Your task to perform on an android device: Show the shopping cart on target.com. Add duracell triple a to the cart on target.com Image 0: 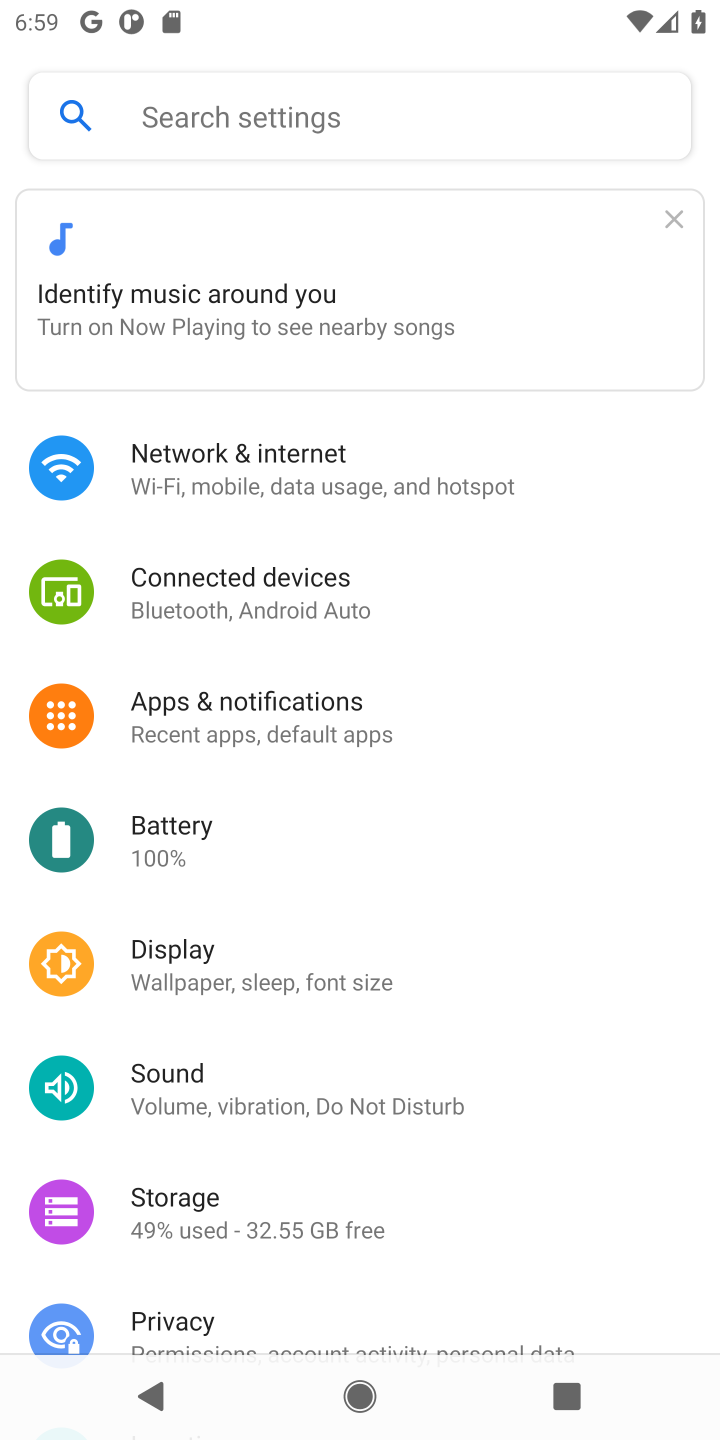
Step 0: press home button
Your task to perform on an android device: Show the shopping cart on target.com. Add duracell triple a to the cart on target.com Image 1: 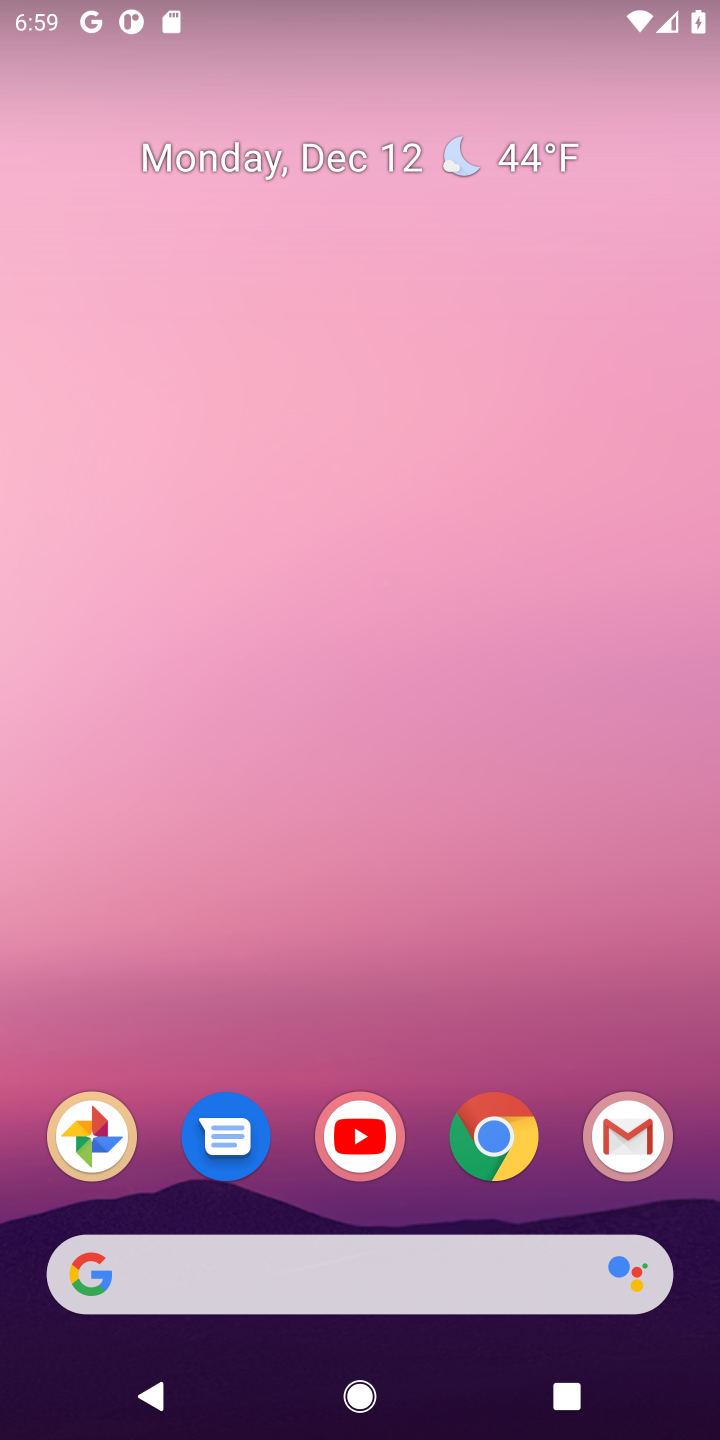
Step 1: click (487, 1144)
Your task to perform on an android device: Show the shopping cart on target.com. Add duracell triple a to the cart on target.com Image 2: 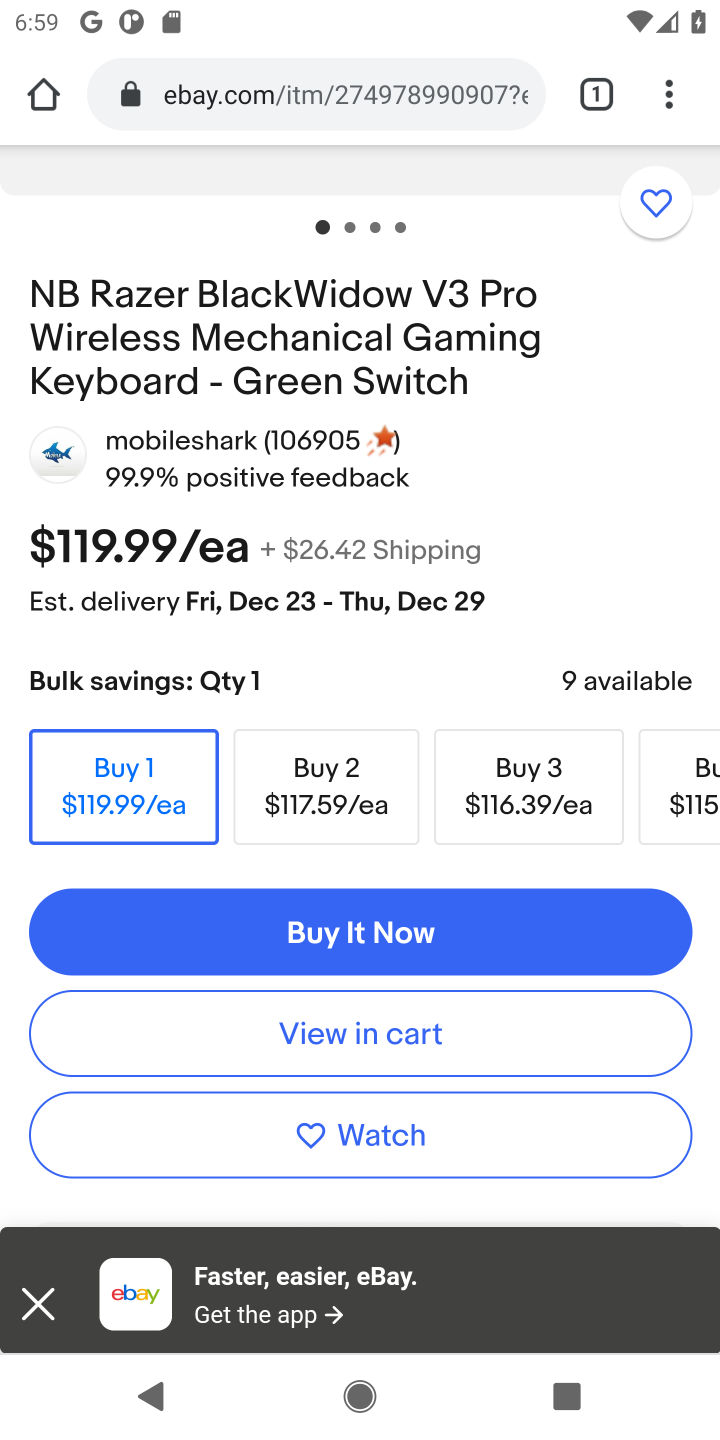
Step 2: click (283, 92)
Your task to perform on an android device: Show the shopping cart on target.com. Add duracell triple a to the cart on target.com Image 3: 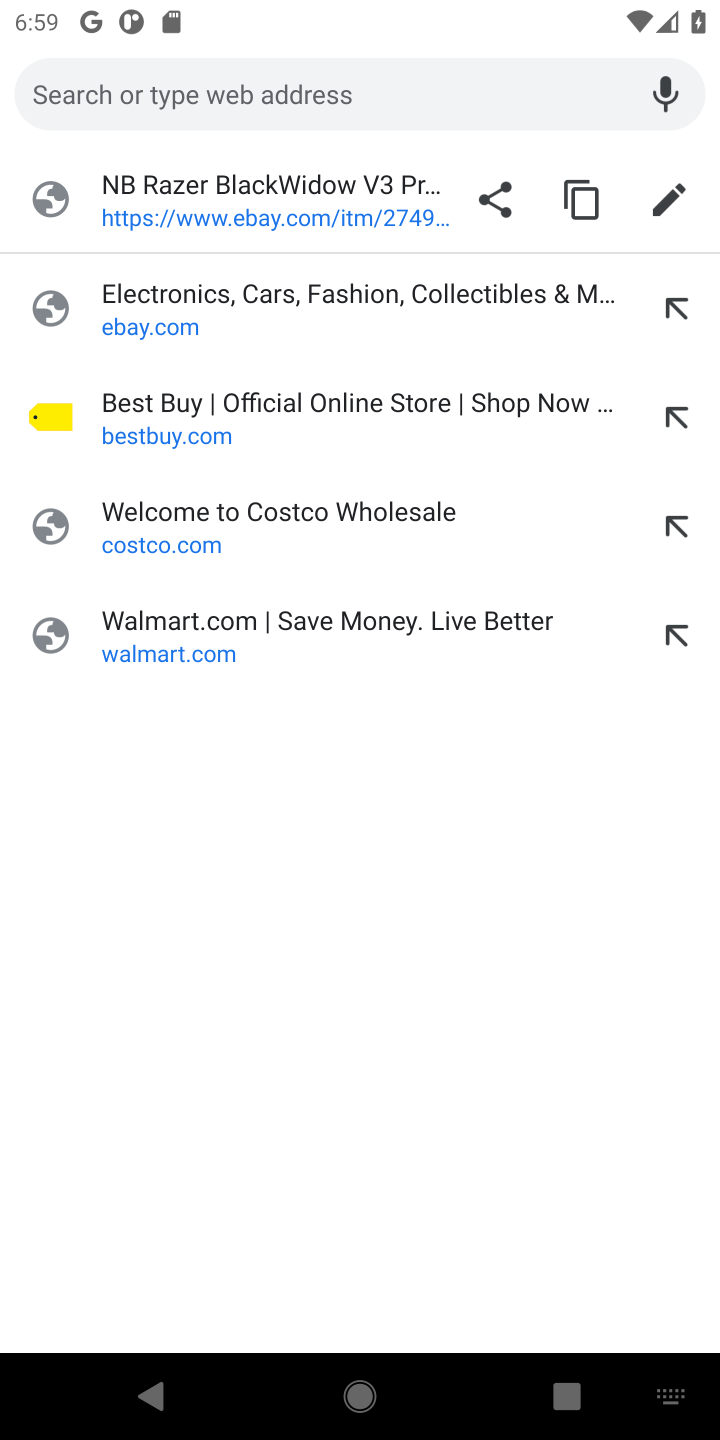
Step 3: type "target.com"
Your task to perform on an android device: Show the shopping cart on target.com. Add duracell triple a to the cart on target.com Image 4: 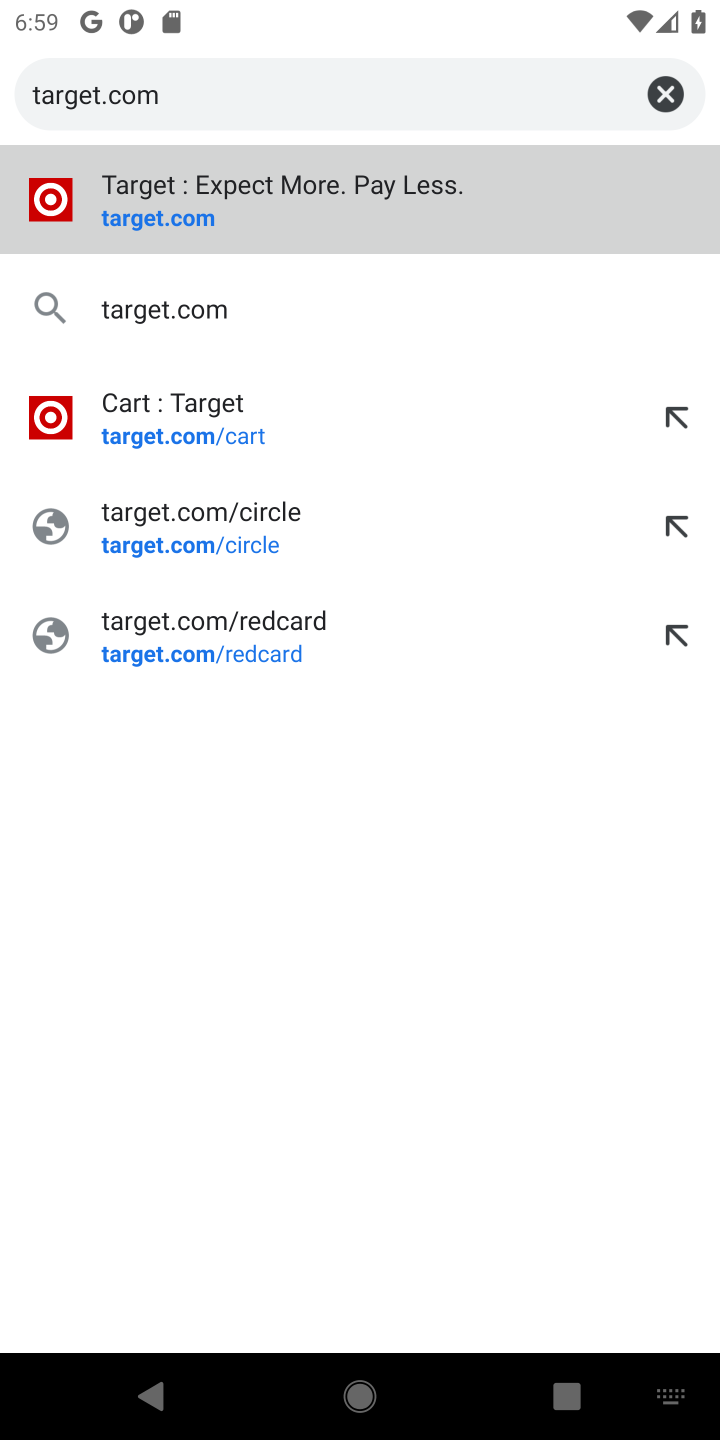
Step 4: click (172, 197)
Your task to perform on an android device: Show the shopping cart on target.com. Add duracell triple a to the cart on target.com Image 5: 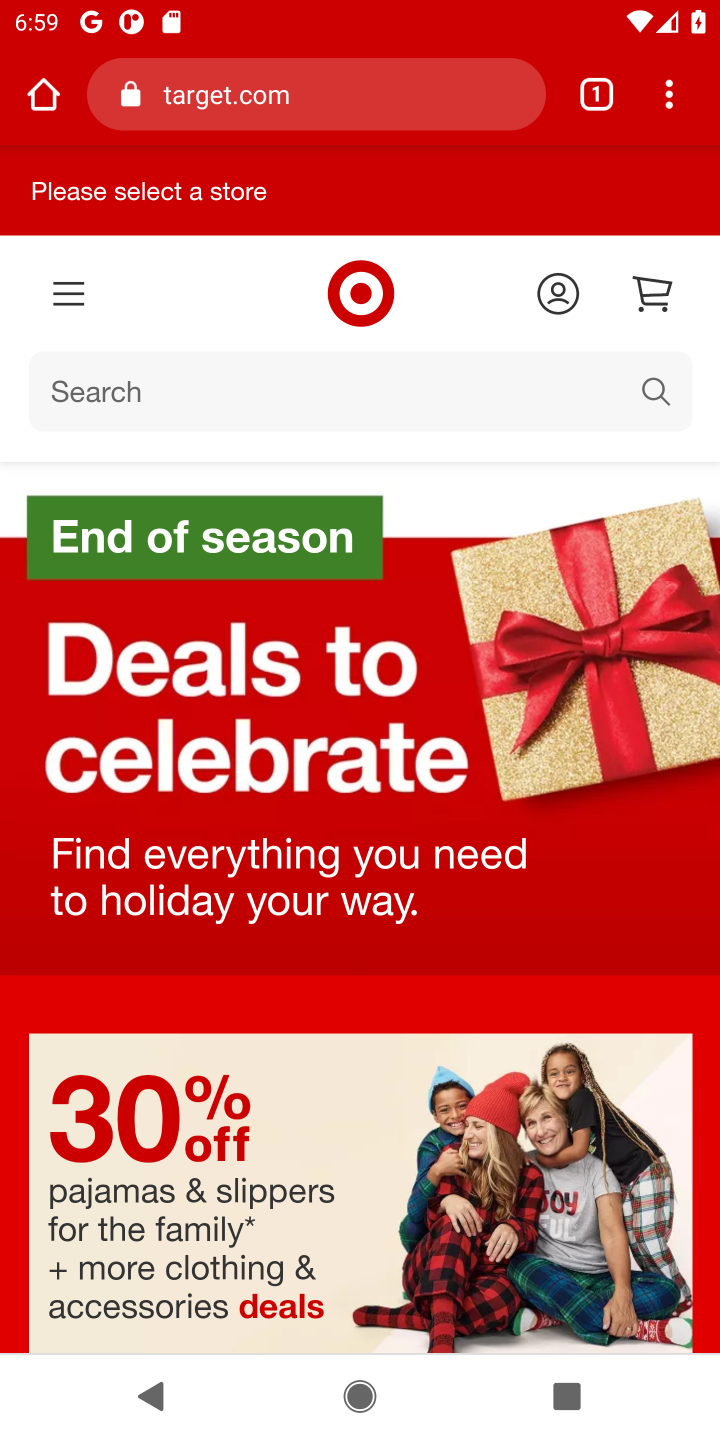
Step 5: click (639, 291)
Your task to perform on an android device: Show the shopping cart on target.com. Add duracell triple a to the cart on target.com Image 6: 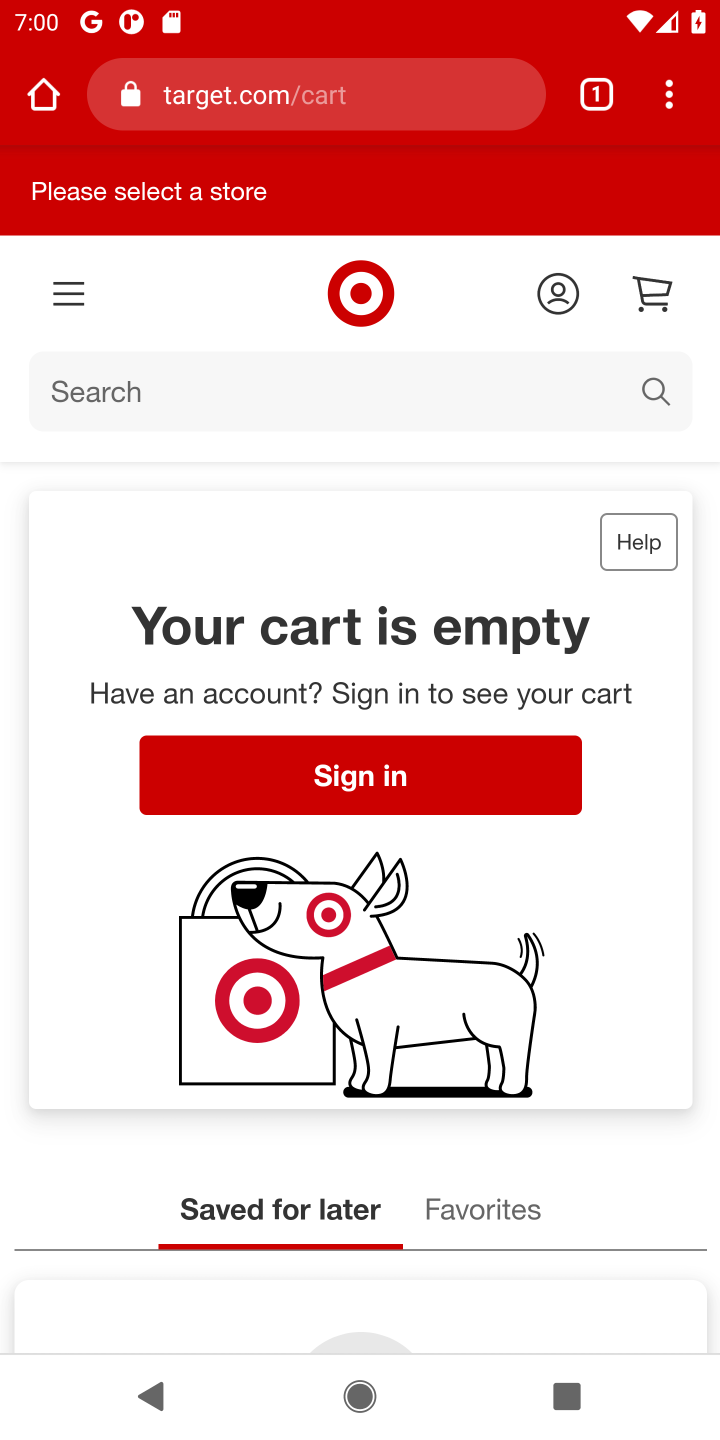
Step 6: click (107, 403)
Your task to perform on an android device: Show the shopping cart on target.com. Add duracell triple a to the cart on target.com Image 7: 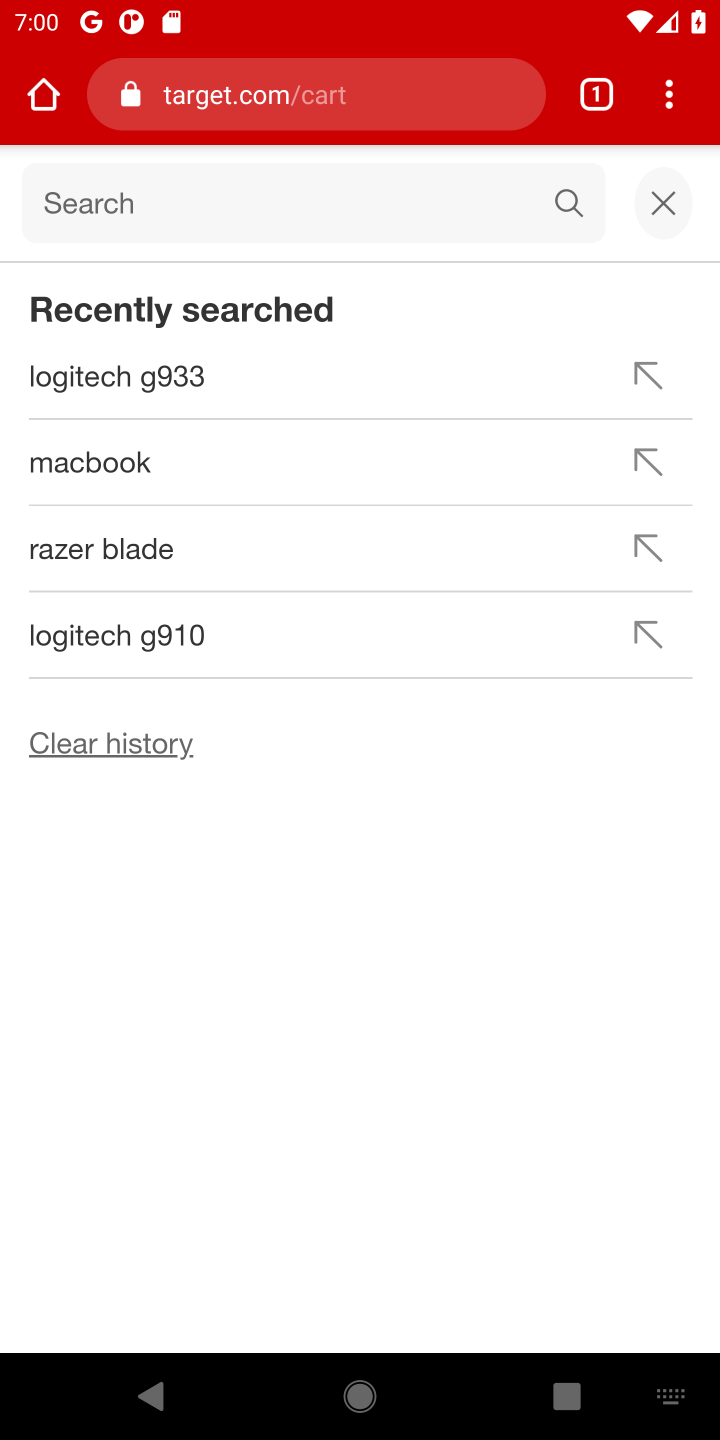
Step 7: type "duracell triple a"
Your task to perform on an android device: Show the shopping cart on target.com. Add duracell triple a to the cart on target.com Image 8: 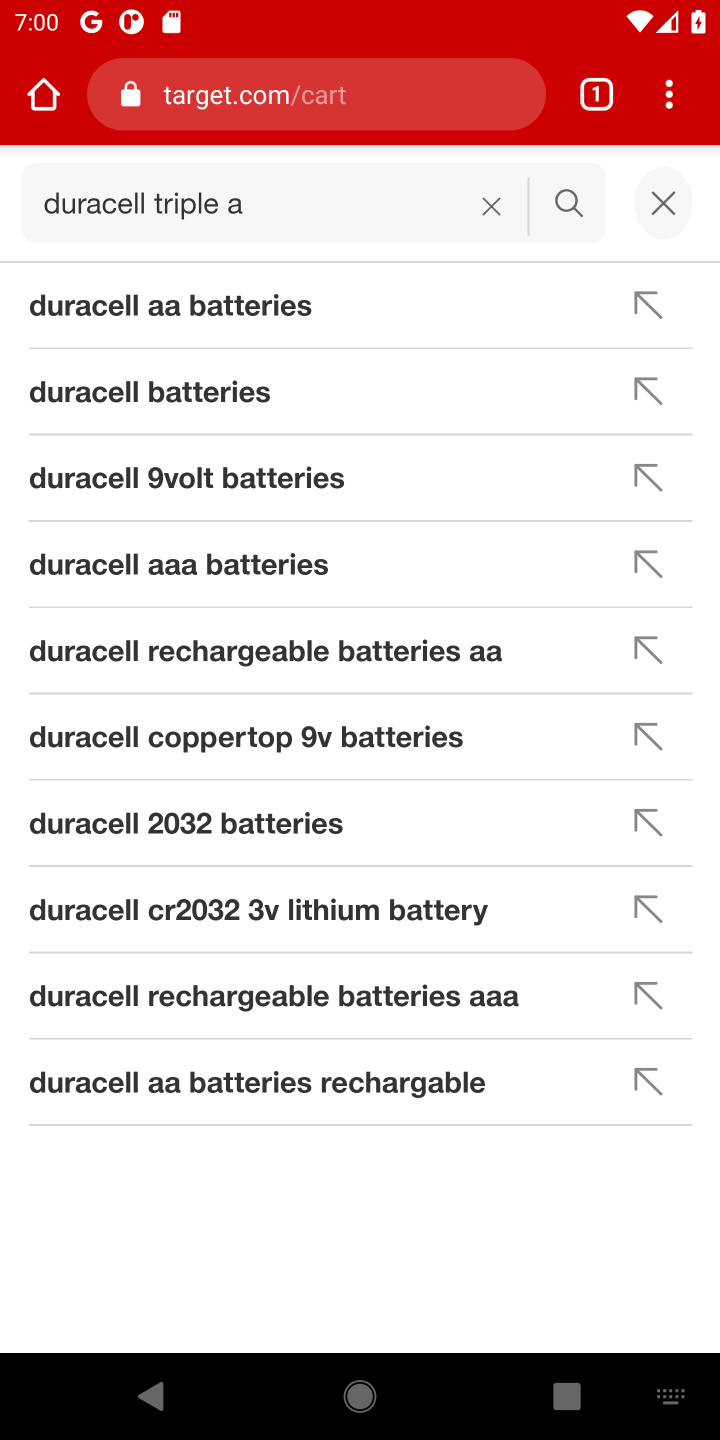
Step 8: click (574, 195)
Your task to perform on an android device: Show the shopping cart on target.com. Add duracell triple a to the cart on target.com Image 9: 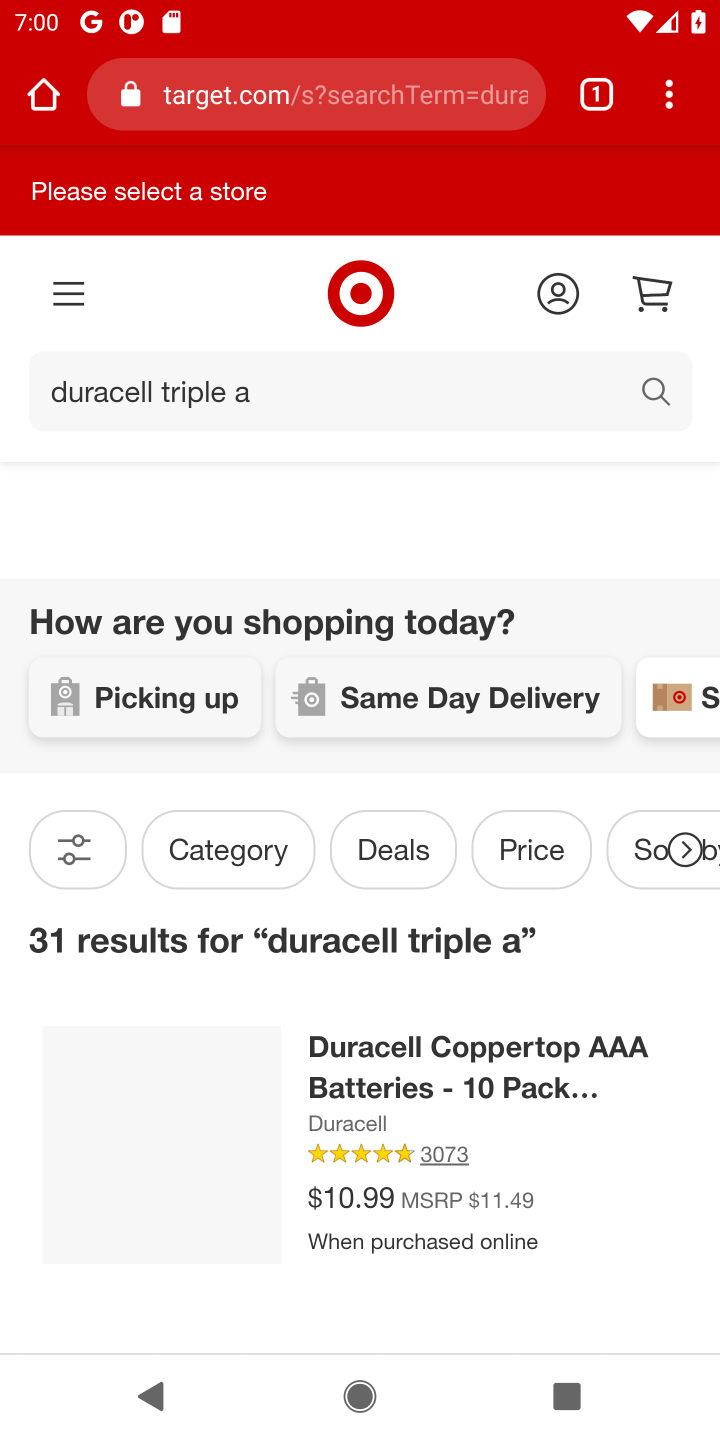
Step 9: drag from (337, 1010) to (359, 511)
Your task to perform on an android device: Show the shopping cart on target.com. Add duracell triple a to the cart on target.com Image 10: 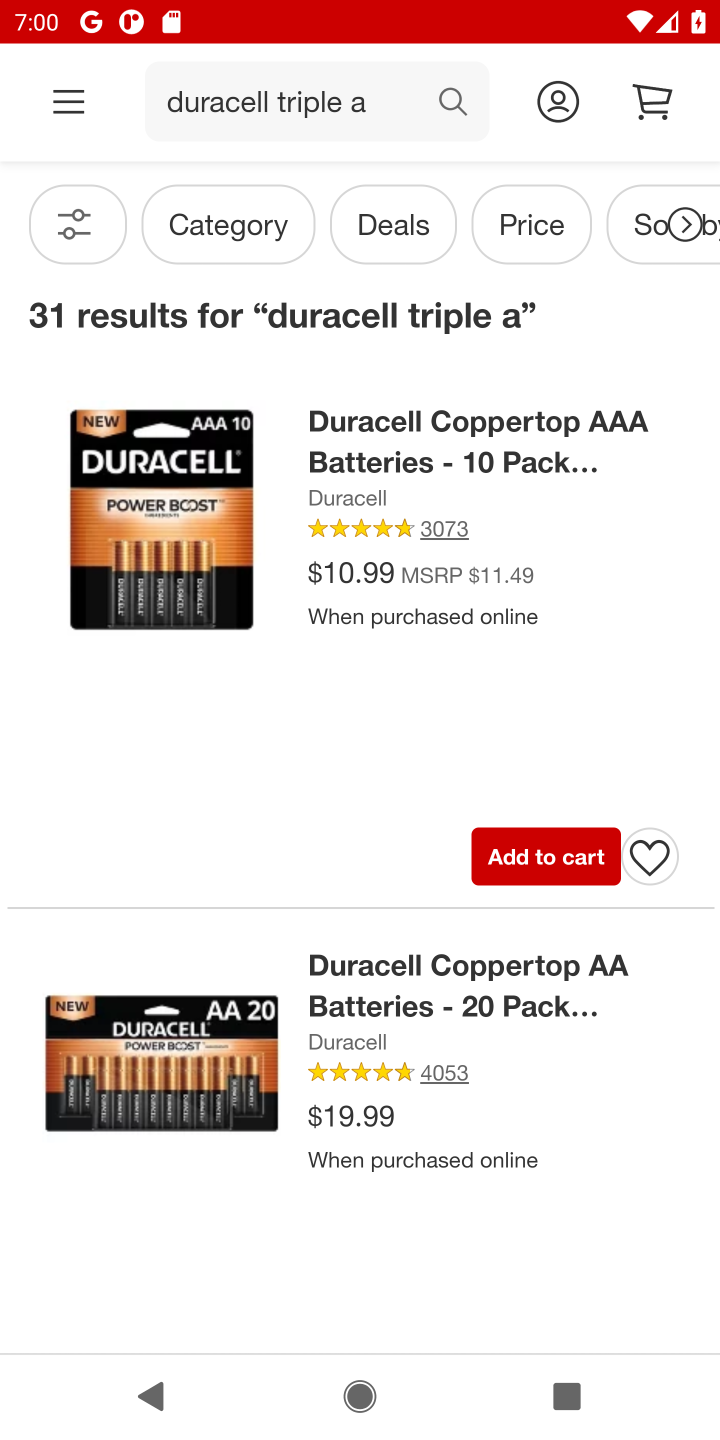
Step 10: click (361, 464)
Your task to perform on an android device: Show the shopping cart on target.com. Add duracell triple a to the cart on target.com Image 11: 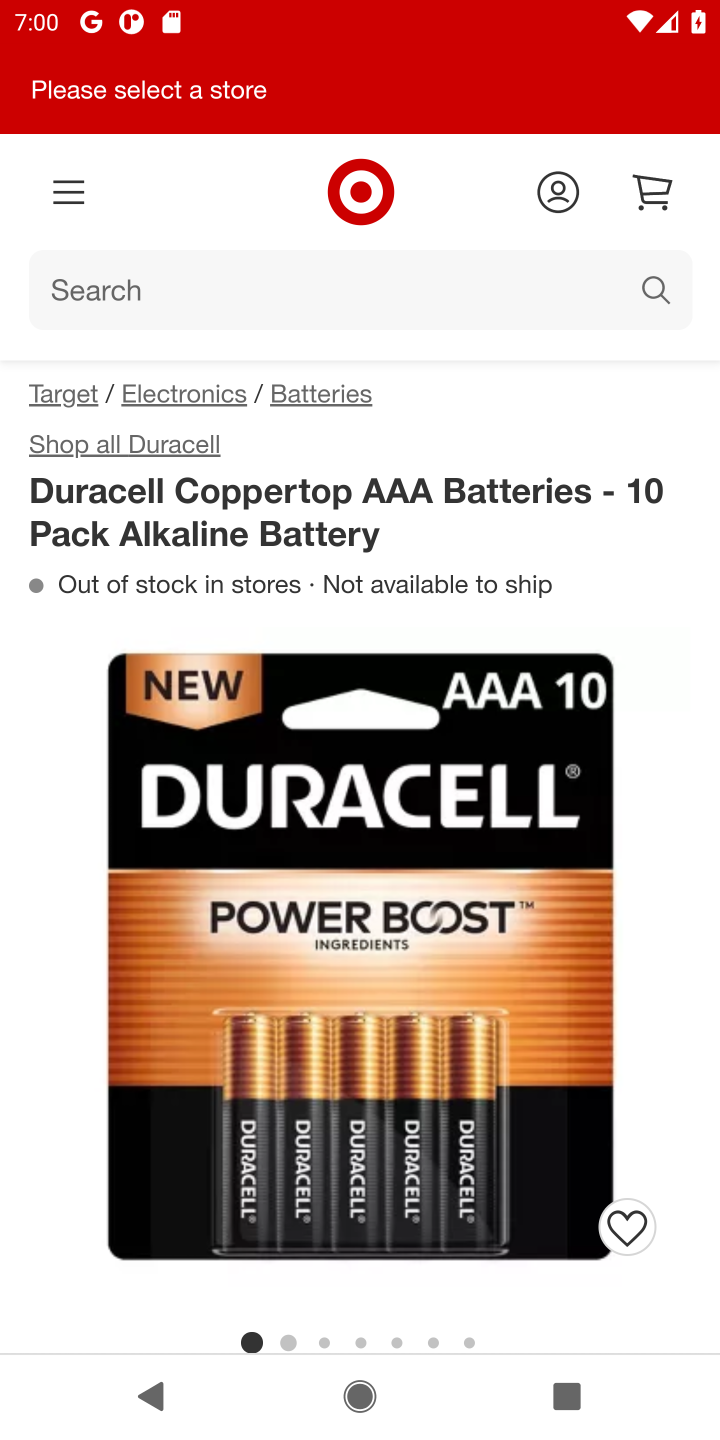
Step 11: drag from (382, 724) to (368, 382)
Your task to perform on an android device: Show the shopping cart on target.com. Add duracell triple a to the cart on target.com Image 12: 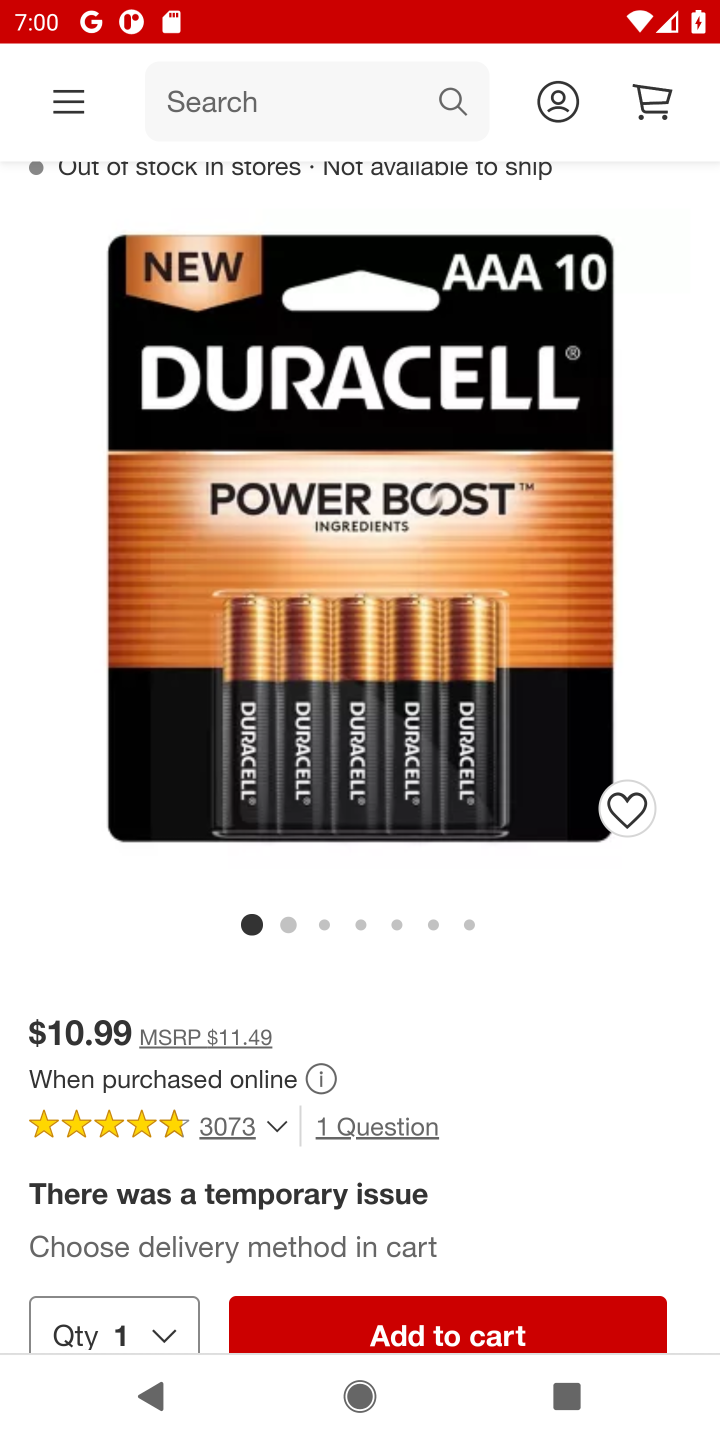
Step 12: drag from (394, 889) to (330, 502)
Your task to perform on an android device: Show the shopping cart on target.com. Add duracell triple a to the cart on target.com Image 13: 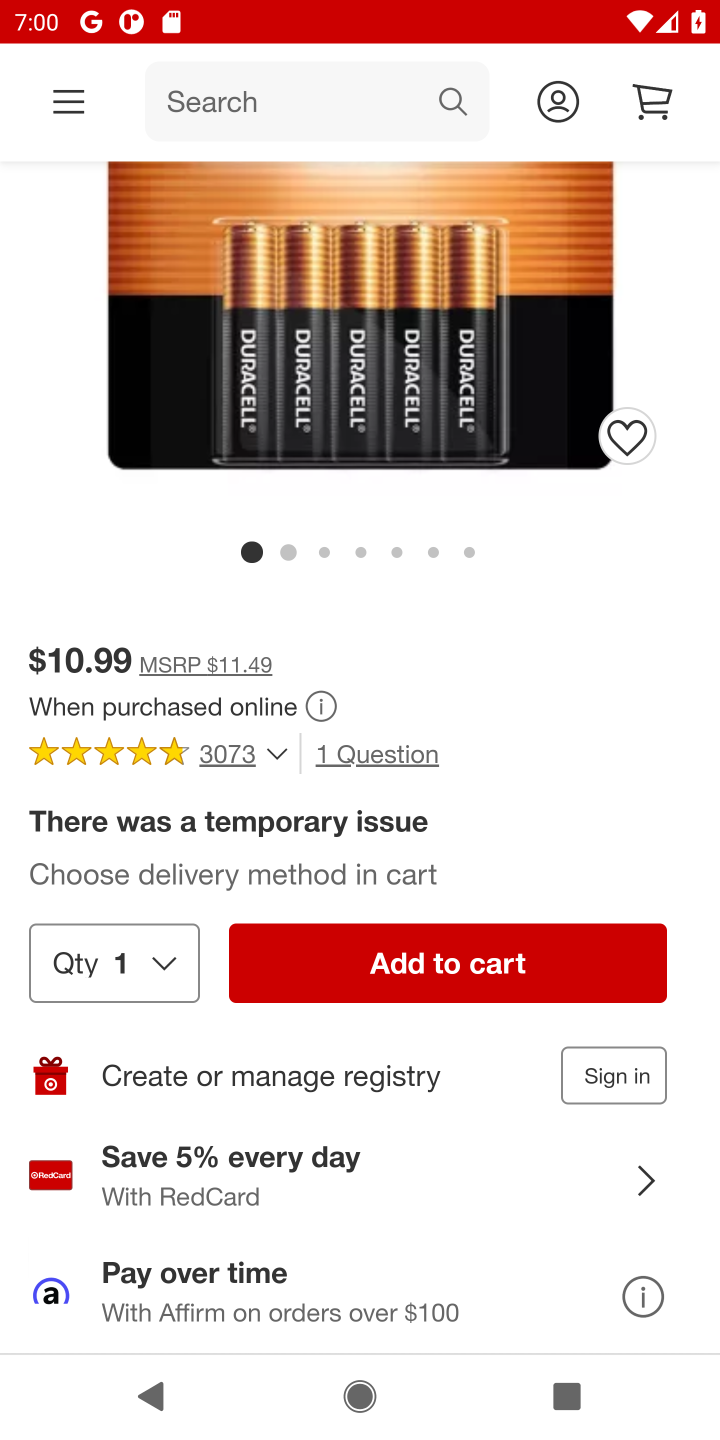
Step 13: click (443, 984)
Your task to perform on an android device: Show the shopping cart on target.com. Add duracell triple a to the cart on target.com Image 14: 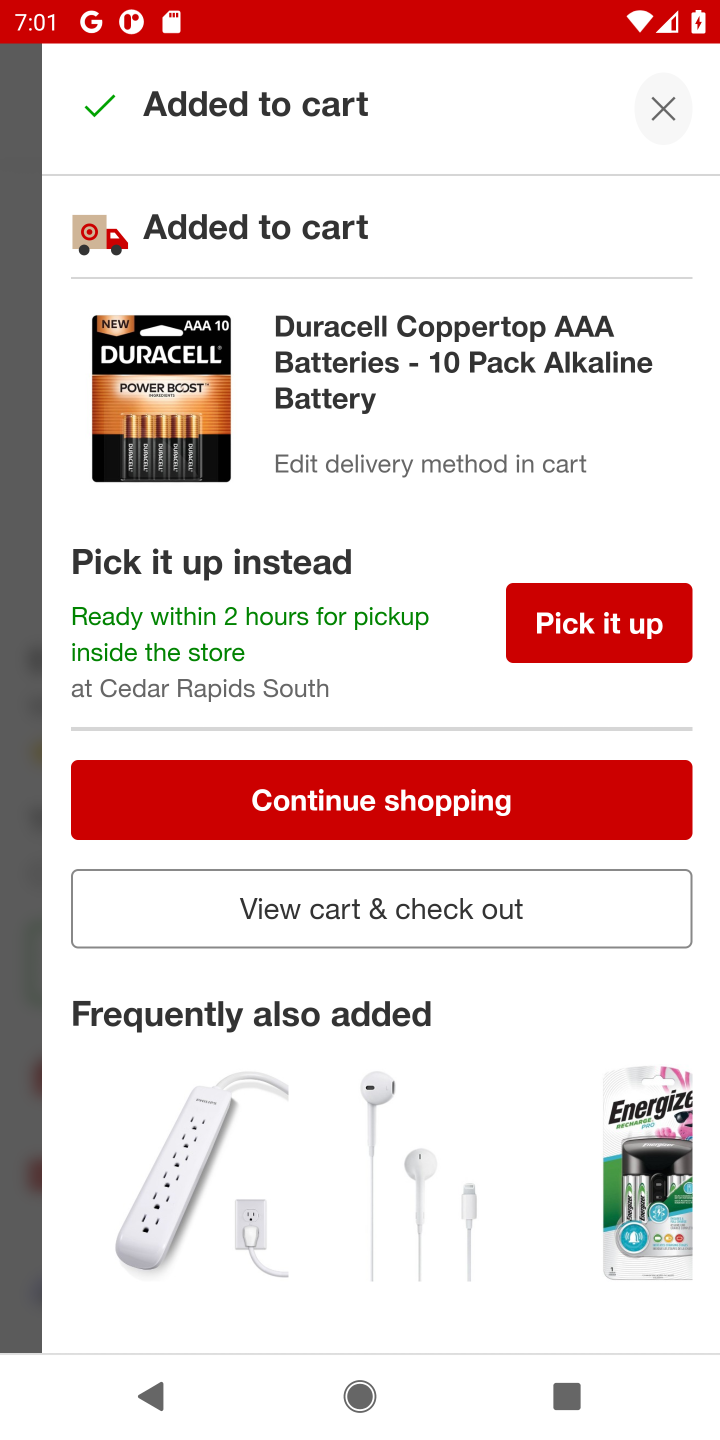
Step 14: task complete